Your task to perform on an android device: toggle pop-ups in chrome Image 0: 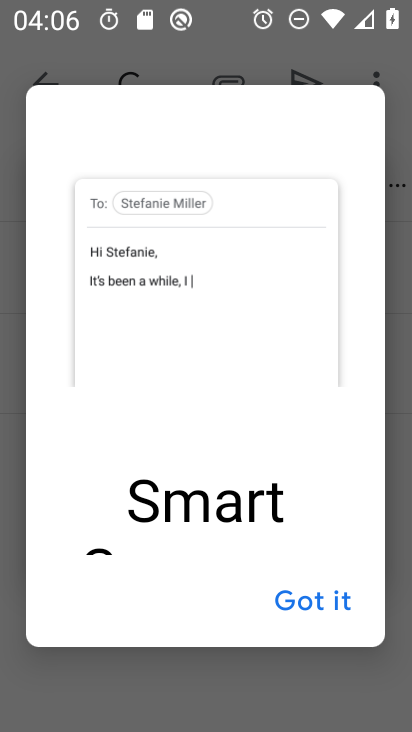
Step 0: press home button
Your task to perform on an android device: toggle pop-ups in chrome Image 1: 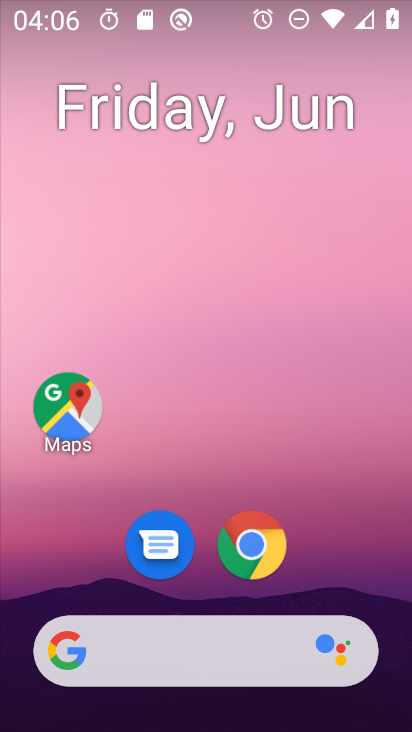
Step 1: click (241, 530)
Your task to perform on an android device: toggle pop-ups in chrome Image 2: 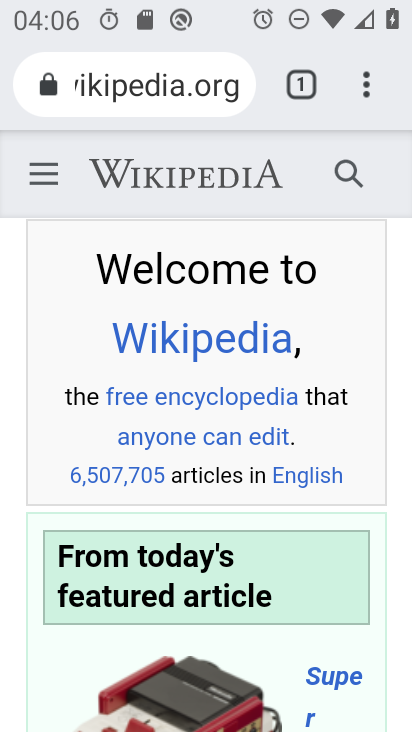
Step 2: click (362, 84)
Your task to perform on an android device: toggle pop-ups in chrome Image 3: 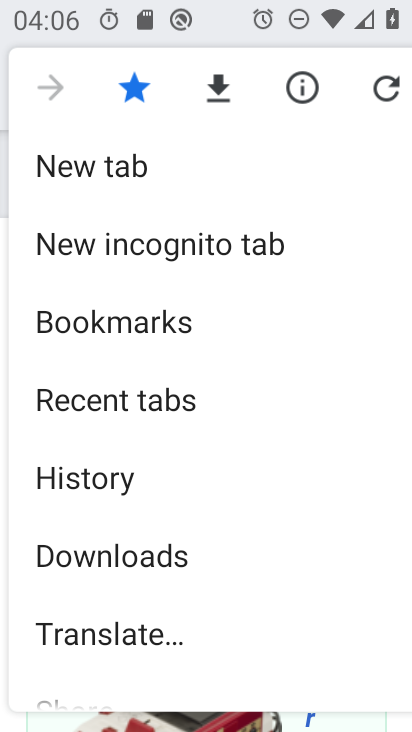
Step 3: drag from (210, 586) to (210, 4)
Your task to perform on an android device: toggle pop-ups in chrome Image 4: 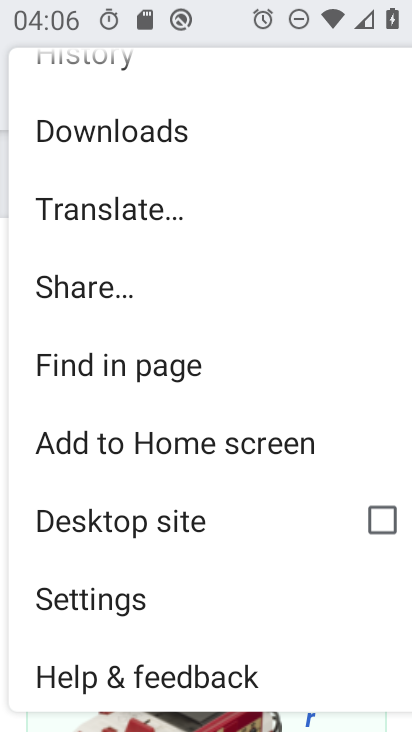
Step 4: click (134, 581)
Your task to perform on an android device: toggle pop-ups in chrome Image 5: 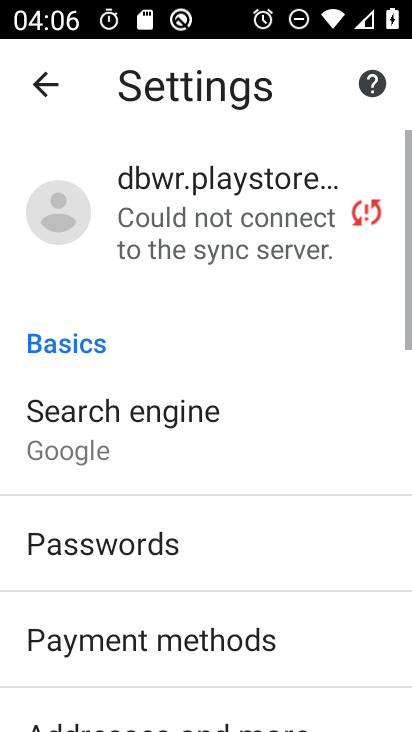
Step 5: drag from (150, 612) to (200, 170)
Your task to perform on an android device: toggle pop-ups in chrome Image 6: 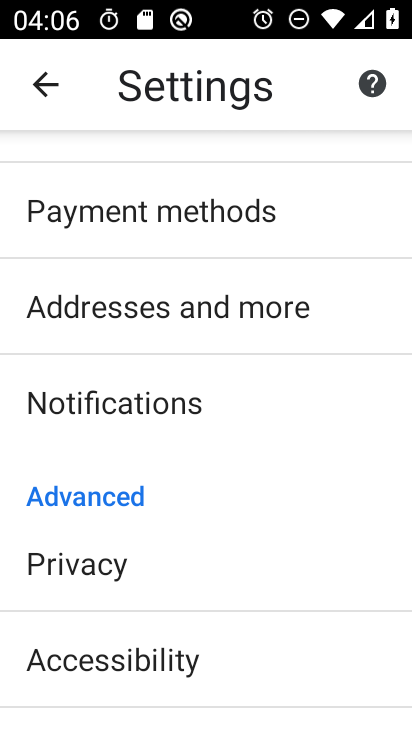
Step 6: drag from (135, 667) to (161, 191)
Your task to perform on an android device: toggle pop-ups in chrome Image 7: 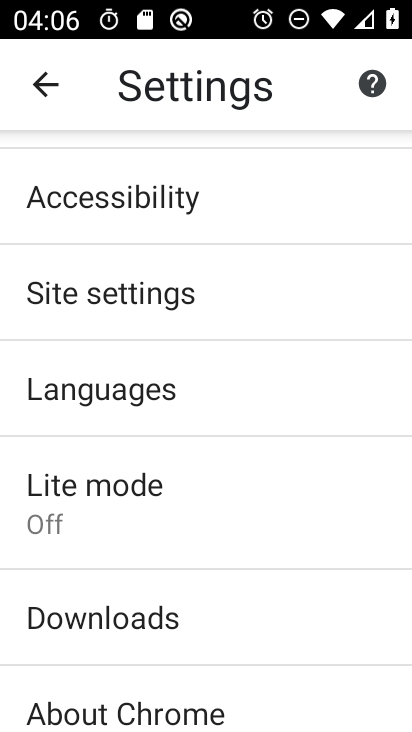
Step 7: click (162, 302)
Your task to perform on an android device: toggle pop-ups in chrome Image 8: 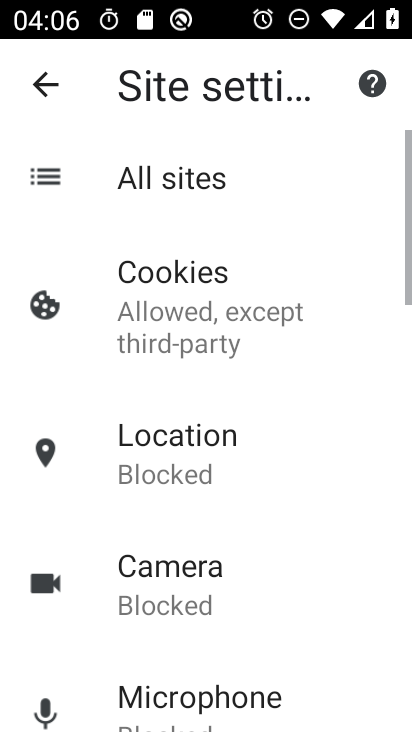
Step 8: drag from (221, 624) to (241, 104)
Your task to perform on an android device: toggle pop-ups in chrome Image 9: 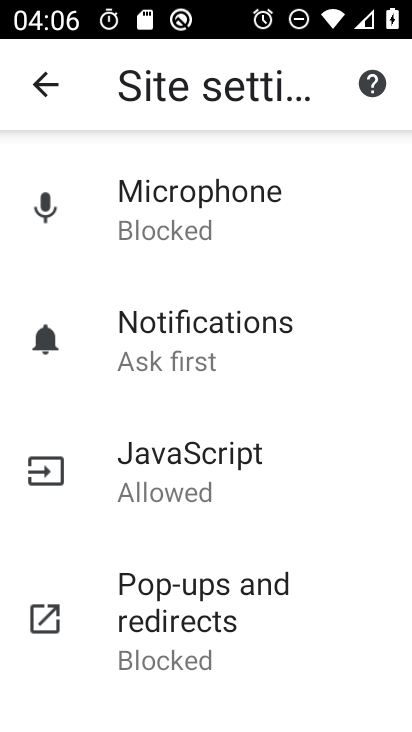
Step 9: click (220, 630)
Your task to perform on an android device: toggle pop-ups in chrome Image 10: 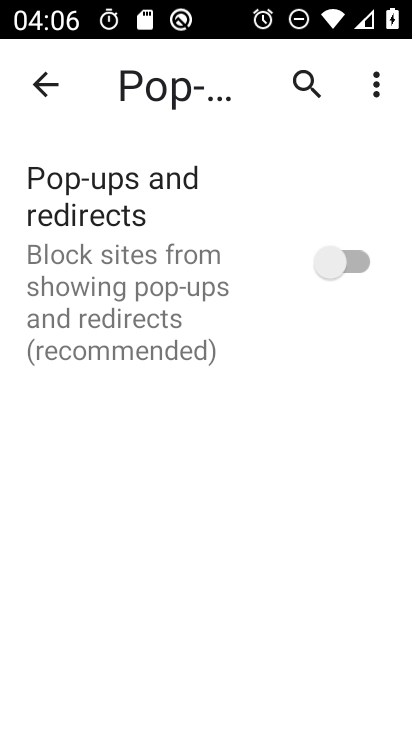
Step 10: click (368, 232)
Your task to perform on an android device: toggle pop-ups in chrome Image 11: 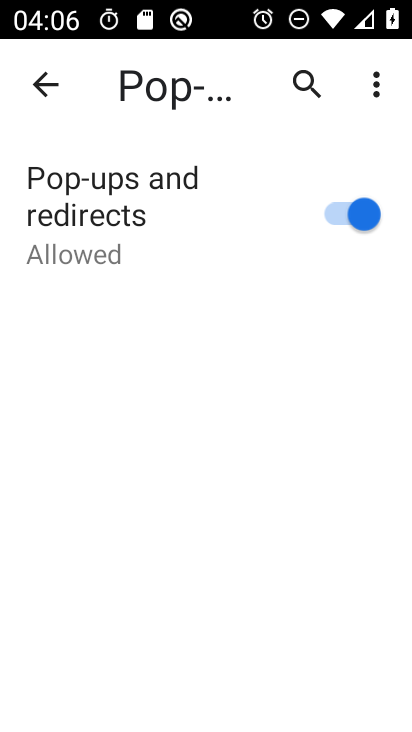
Step 11: task complete